Your task to perform on an android device: What's the weather going to be this weekend? Image 0: 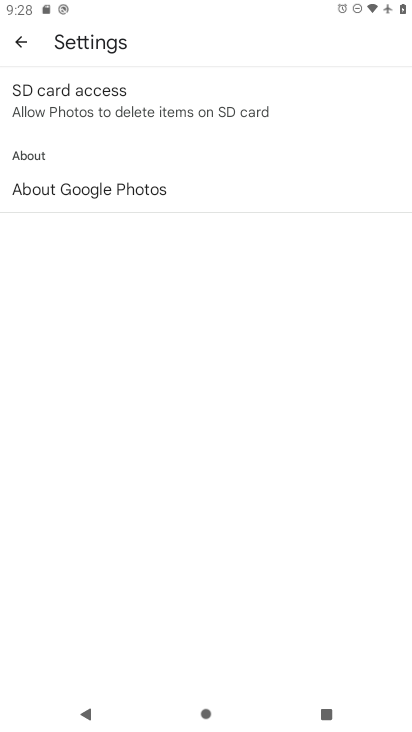
Step 0: press home button
Your task to perform on an android device: What's the weather going to be this weekend? Image 1: 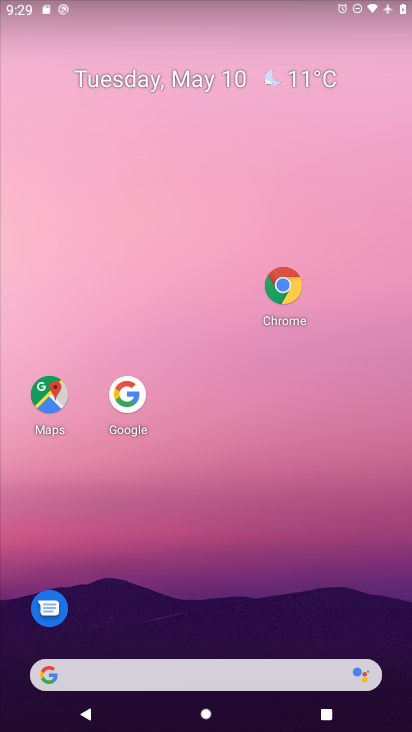
Step 1: click (318, 78)
Your task to perform on an android device: What's the weather going to be this weekend? Image 2: 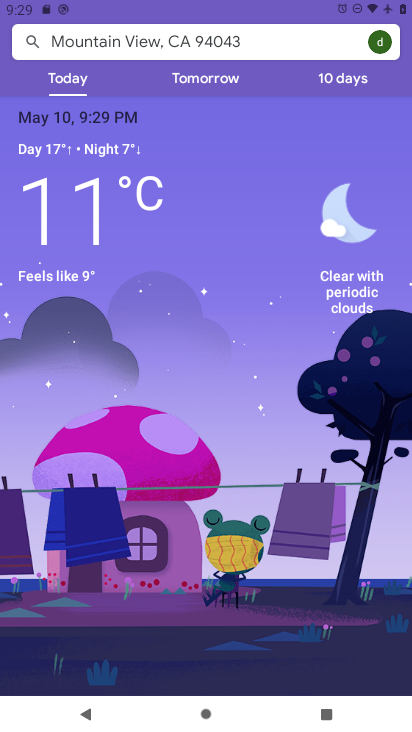
Step 2: click (341, 84)
Your task to perform on an android device: What's the weather going to be this weekend? Image 3: 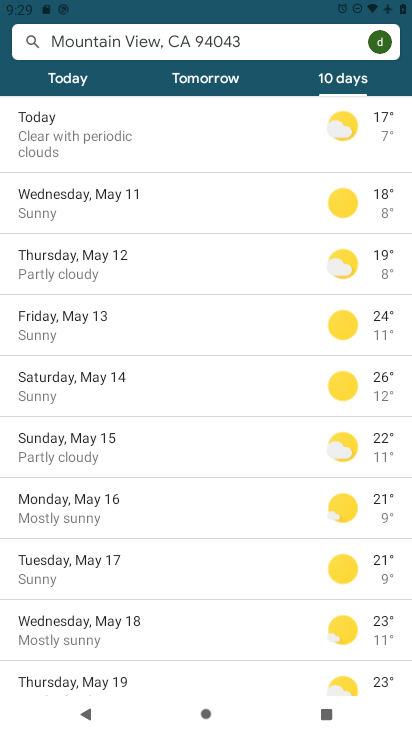
Step 3: click (131, 389)
Your task to perform on an android device: What's the weather going to be this weekend? Image 4: 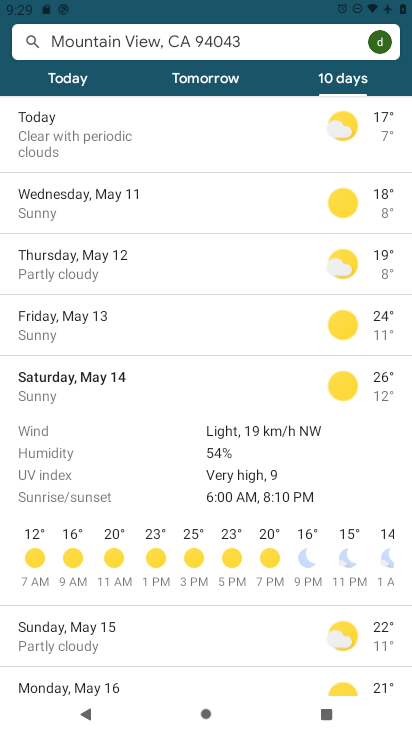
Step 4: task complete